Your task to perform on an android device: Go to Maps Image 0: 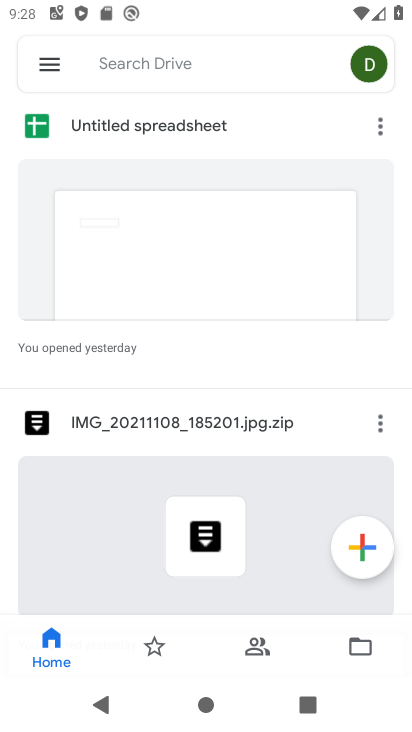
Step 0: press home button
Your task to perform on an android device: Go to Maps Image 1: 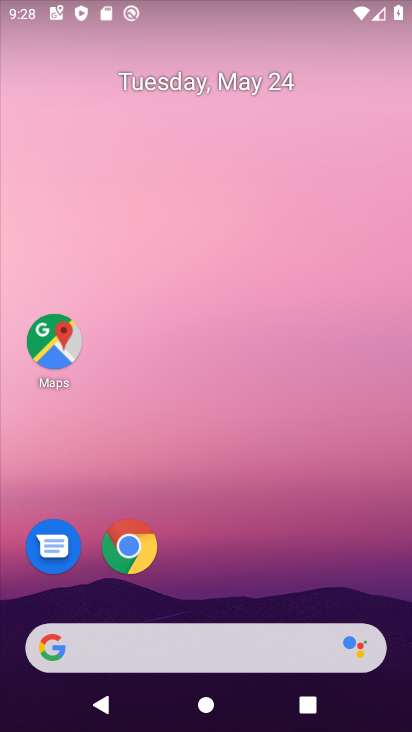
Step 1: click (59, 349)
Your task to perform on an android device: Go to Maps Image 2: 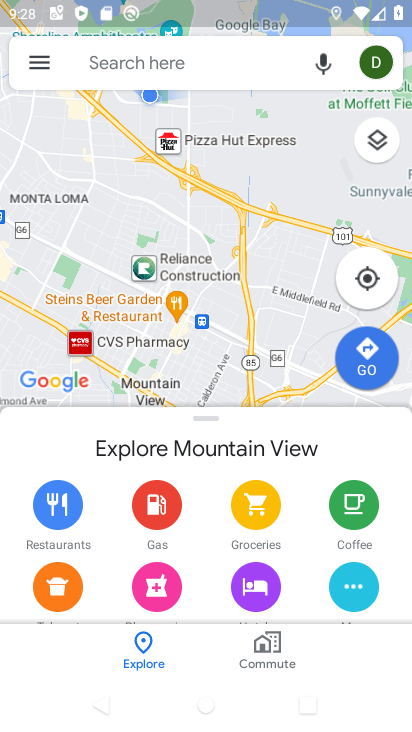
Step 2: task complete